Your task to perform on an android device: open sync settings in chrome Image 0: 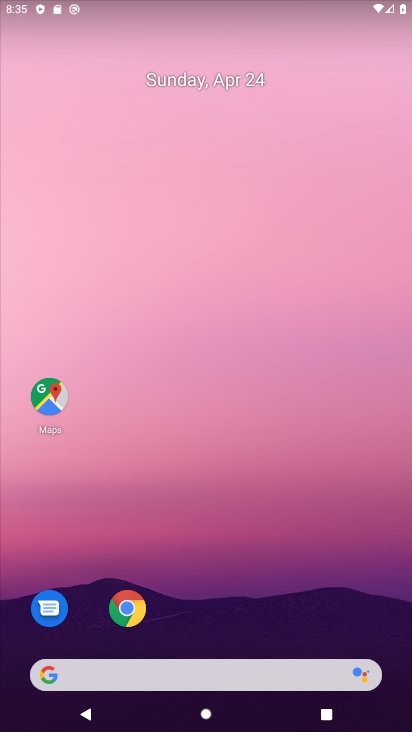
Step 0: click (130, 596)
Your task to perform on an android device: open sync settings in chrome Image 1: 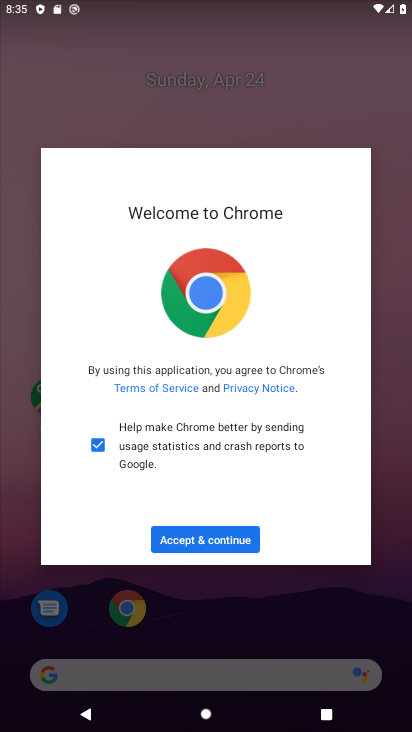
Step 1: click (190, 524)
Your task to perform on an android device: open sync settings in chrome Image 2: 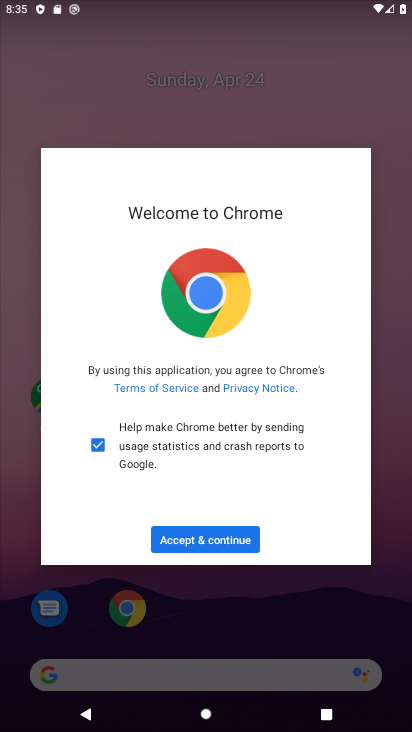
Step 2: click (183, 541)
Your task to perform on an android device: open sync settings in chrome Image 3: 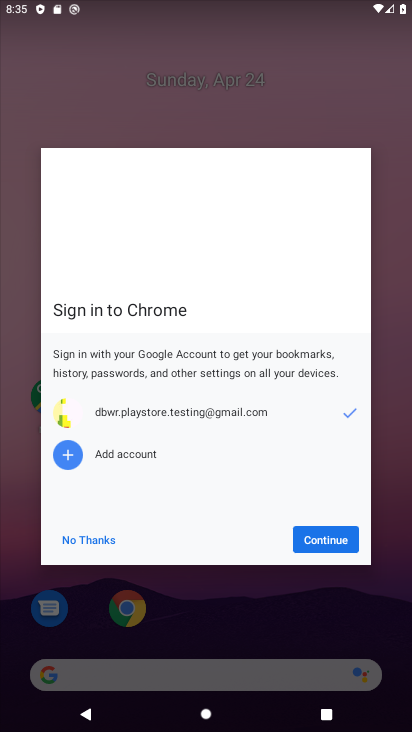
Step 3: click (309, 532)
Your task to perform on an android device: open sync settings in chrome Image 4: 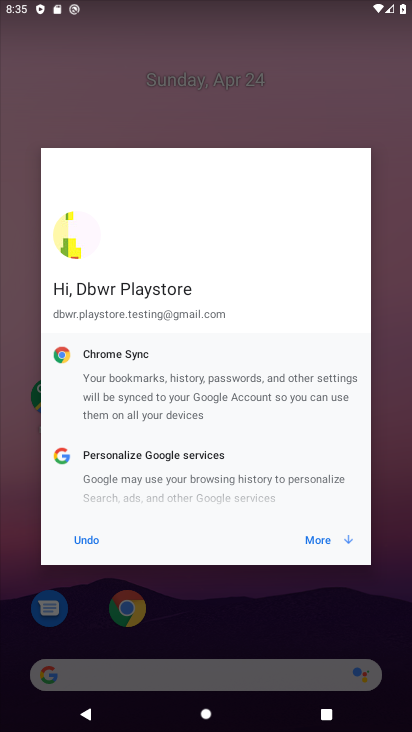
Step 4: click (308, 530)
Your task to perform on an android device: open sync settings in chrome Image 5: 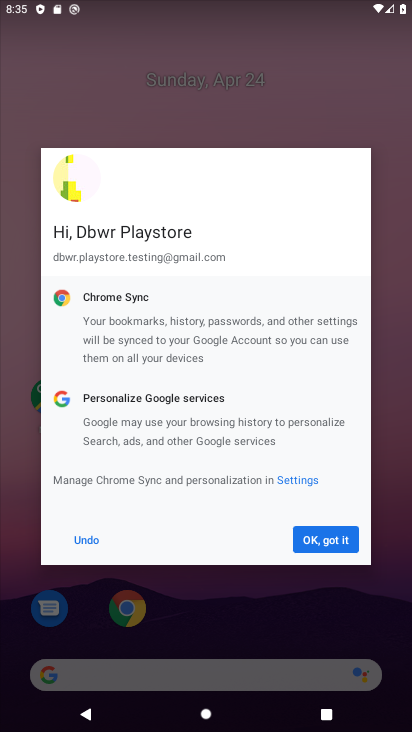
Step 5: click (308, 530)
Your task to perform on an android device: open sync settings in chrome Image 6: 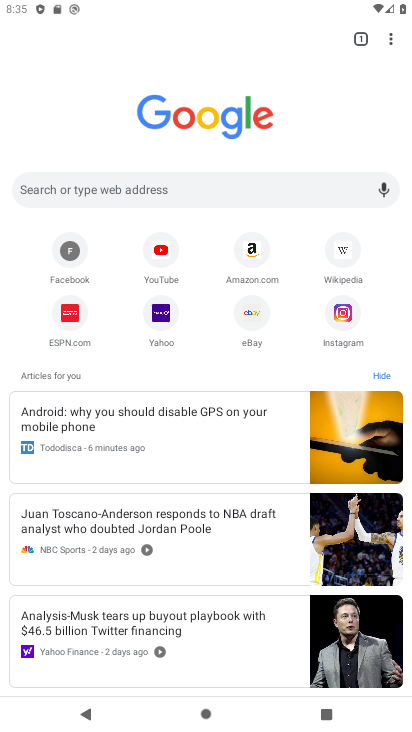
Step 6: click (393, 38)
Your task to perform on an android device: open sync settings in chrome Image 7: 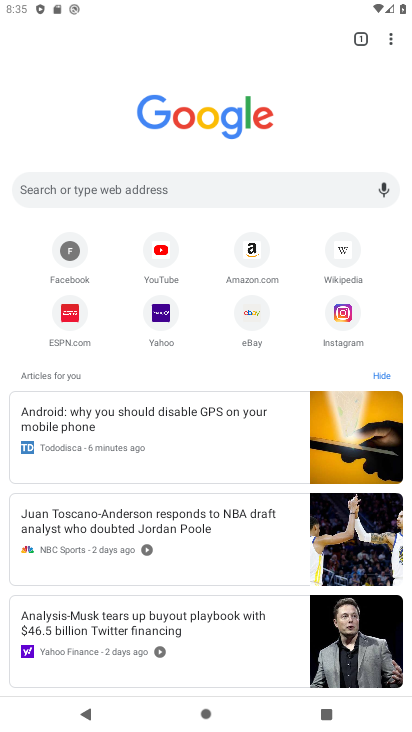
Step 7: click (387, 44)
Your task to perform on an android device: open sync settings in chrome Image 8: 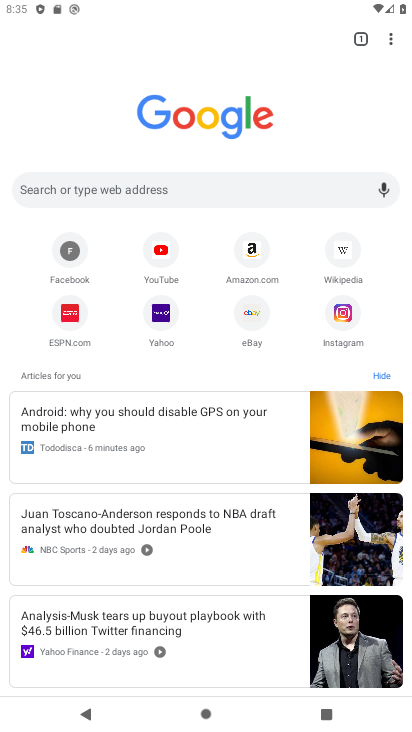
Step 8: click (388, 43)
Your task to perform on an android device: open sync settings in chrome Image 9: 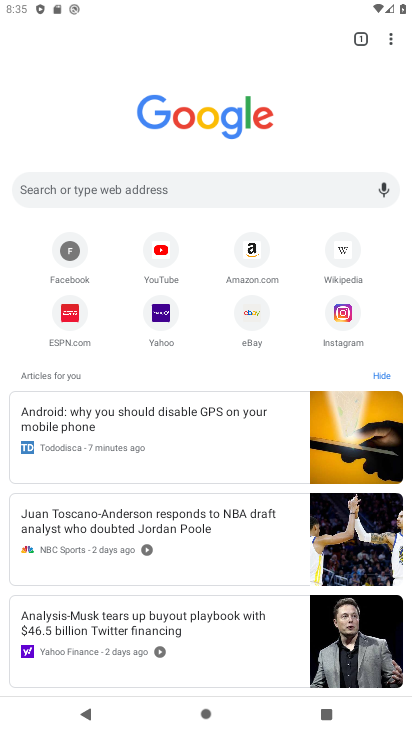
Step 9: drag from (388, 43) to (260, 326)
Your task to perform on an android device: open sync settings in chrome Image 10: 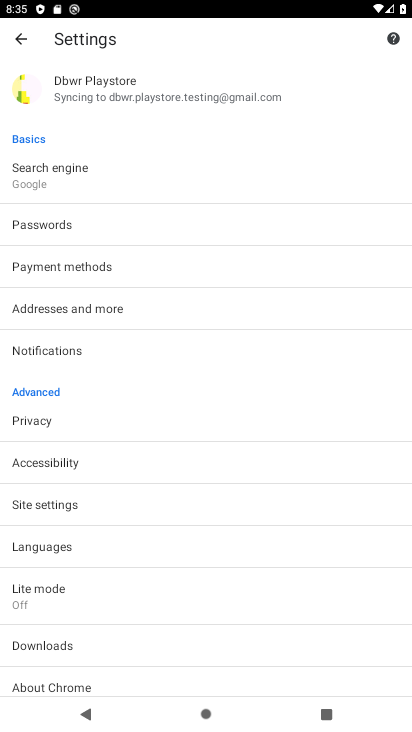
Step 10: click (162, 102)
Your task to perform on an android device: open sync settings in chrome Image 11: 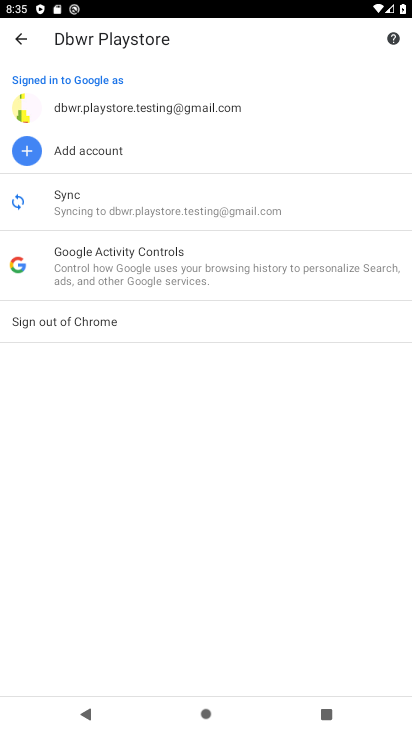
Step 11: click (144, 215)
Your task to perform on an android device: open sync settings in chrome Image 12: 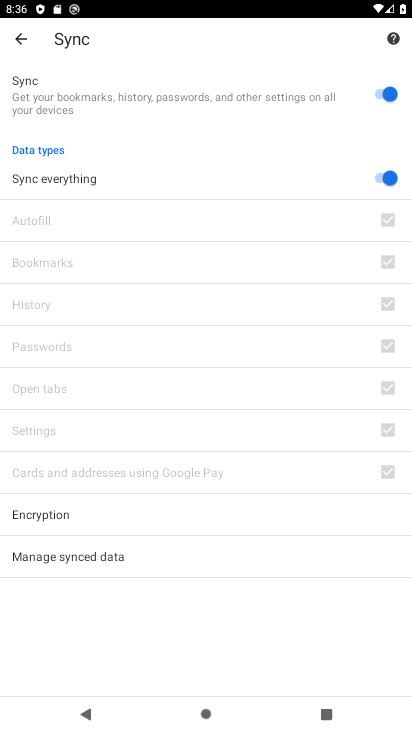
Step 12: task complete